Your task to perform on an android device: Is it going to rain today? Image 0: 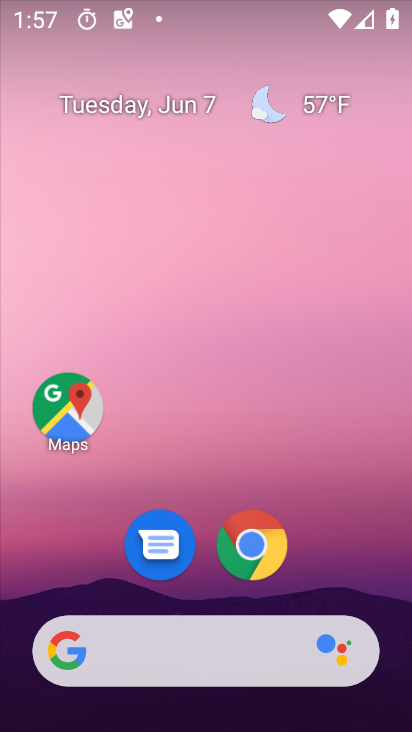
Step 0: click (312, 99)
Your task to perform on an android device: Is it going to rain today? Image 1: 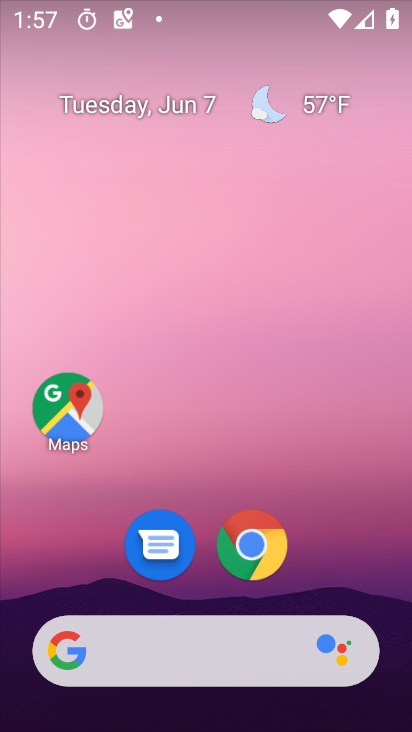
Step 1: click (378, 109)
Your task to perform on an android device: Is it going to rain today? Image 2: 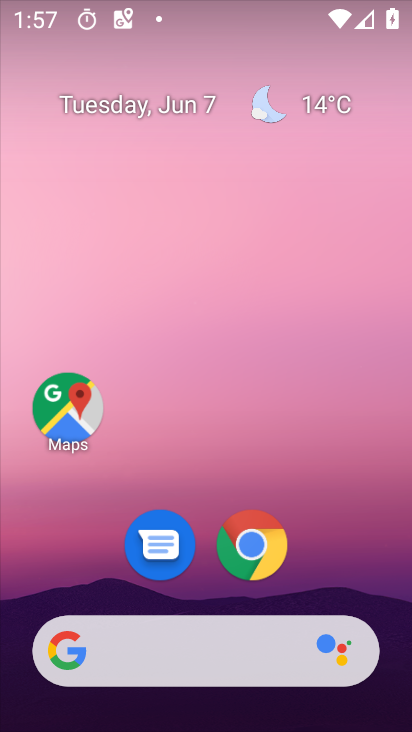
Step 2: click (323, 103)
Your task to perform on an android device: Is it going to rain today? Image 3: 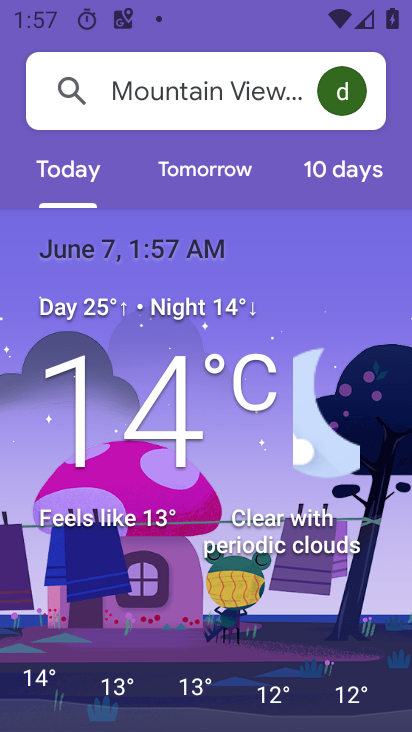
Step 3: task complete